Your task to perform on an android device: Open Android settings Image 0: 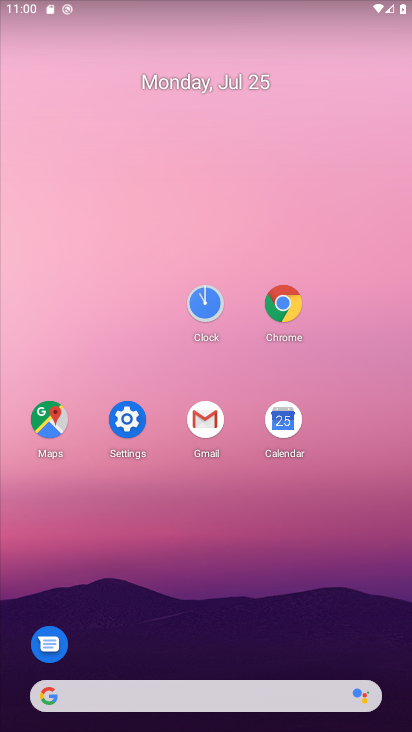
Step 0: click (124, 422)
Your task to perform on an android device: Open Android settings Image 1: 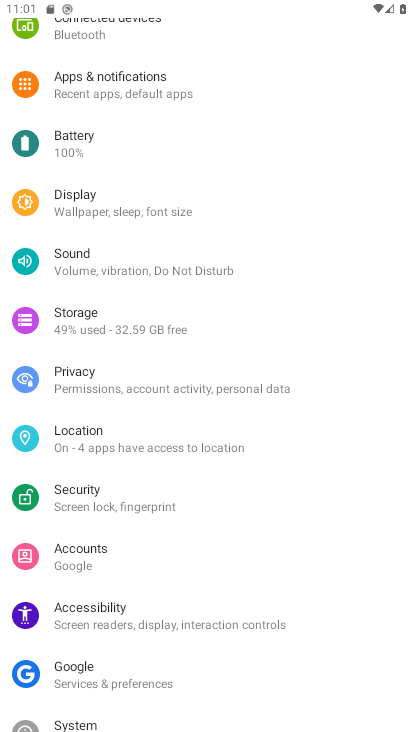
Step 1: task complete